Your task to perform on an android device: Open Maps and search for coffee Image 0: 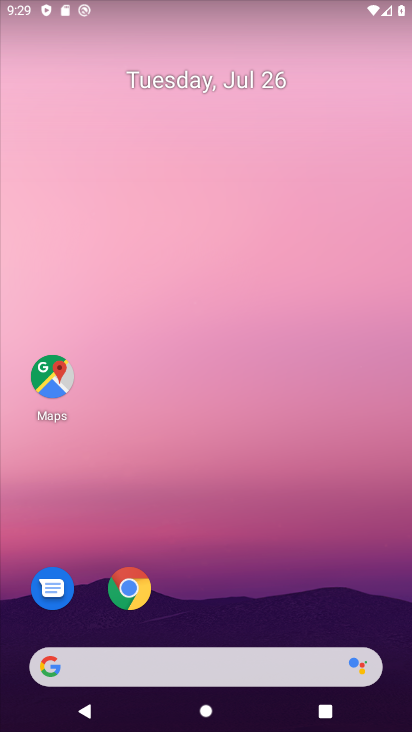
Step 0: click (53, 377)
Your task to perform on an android device: Open Maps and search for coffee Image 1: 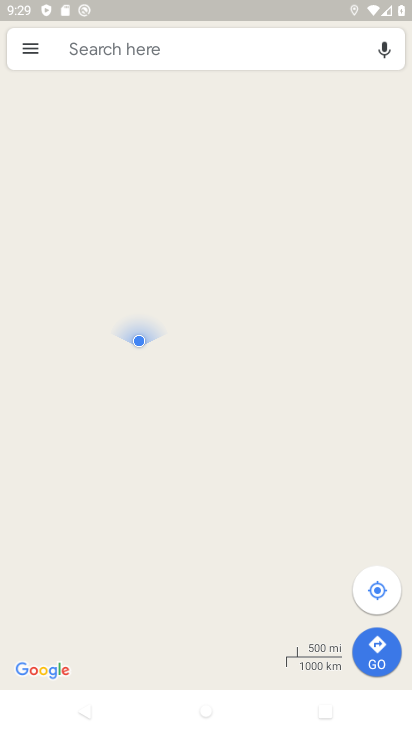
Step 1: click (160, 56)
Your task to perform on an android device: Open Maps and search for coffee Image 2: 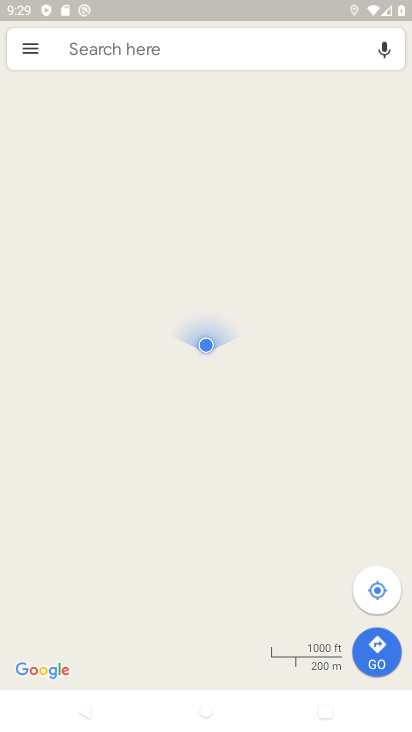
Step 2: click (201, 46)
Your task to perform on an android device: Open Maps and search for coffee Image 3: 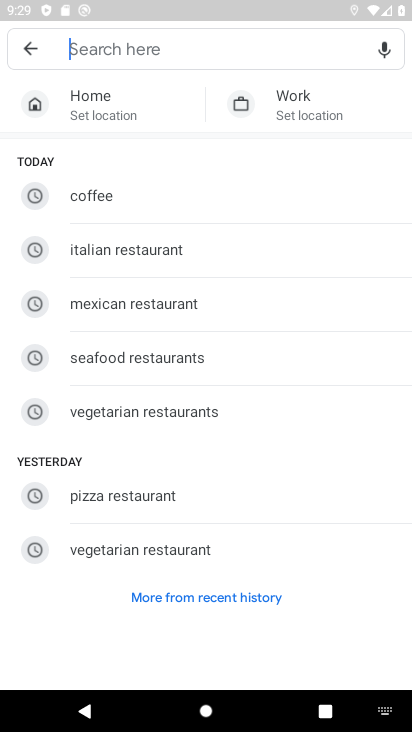
Step 3: type "coffee"
Your task to perform on an android device: Open Maps and search for coffee Image 4: 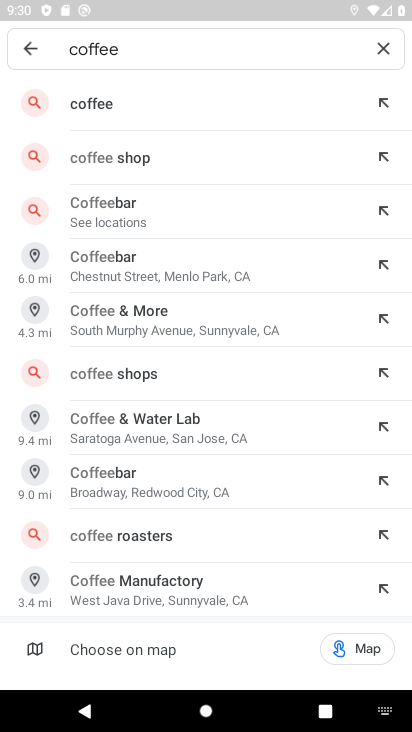
Step 4: click (94, 107)
Your task to perform on an android device: Open Maps and search for coffee Image 5: 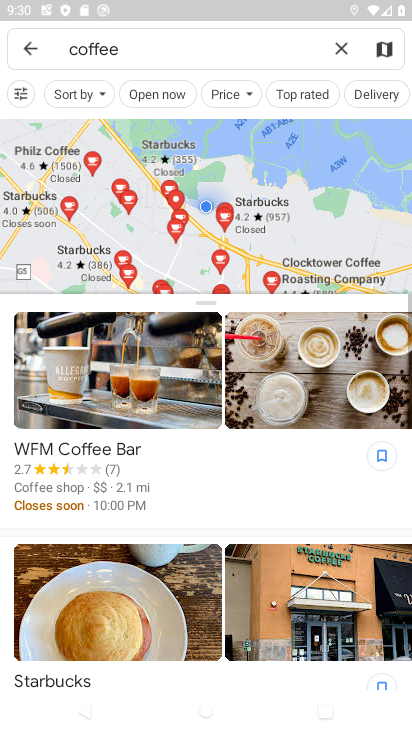
Step 5: task complete